Your task to perform on an android device: turn off javascript in the chrome app Image 0: 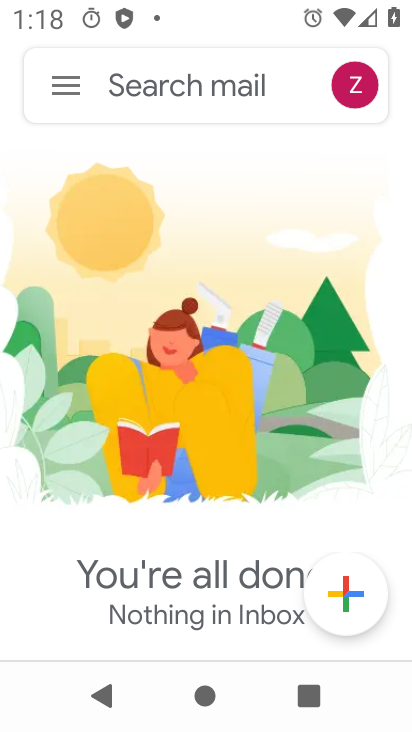
Step 0: press home button
Your task to perform on an android device: turn off javascript in the chrome app Image 1: 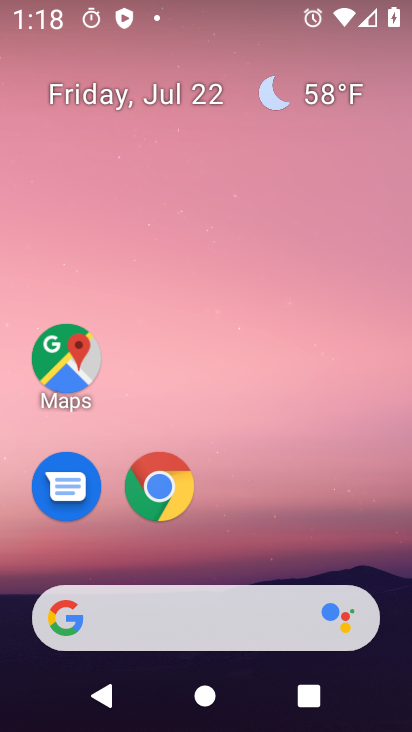
Step 1: drag from (345, 527) to (367, 75)
Your task to perform on an android device: turn off javascript in the chrome app Image 2: 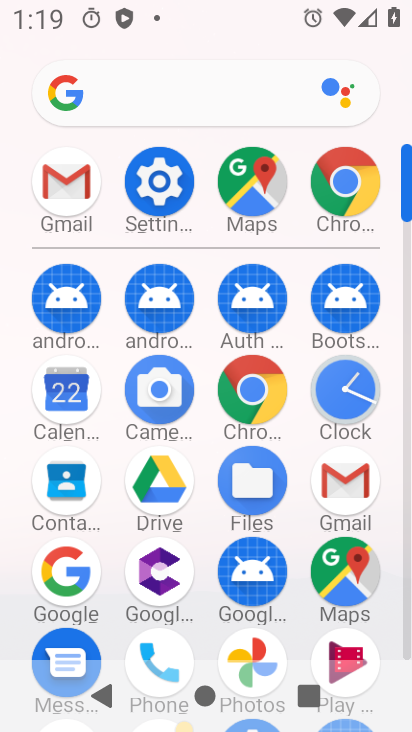
Step 2: click (270, 395)
Your task to perform on an android device: turn off javascript in the chrome app Image 3: 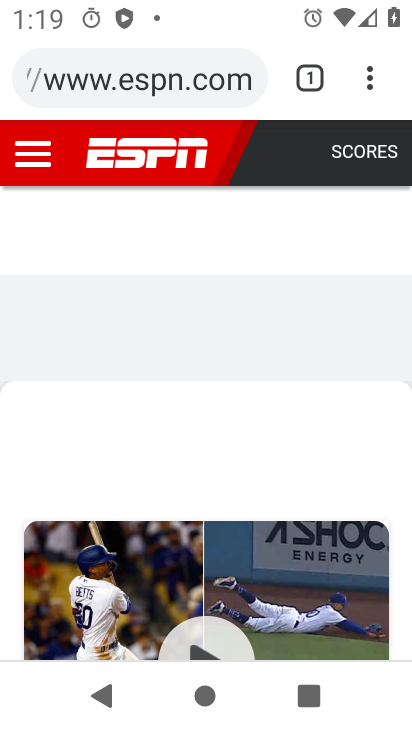
Step 3: click (371, 90)
Your task to perform on an android device: turn off javascript in the chrome app Image 4: 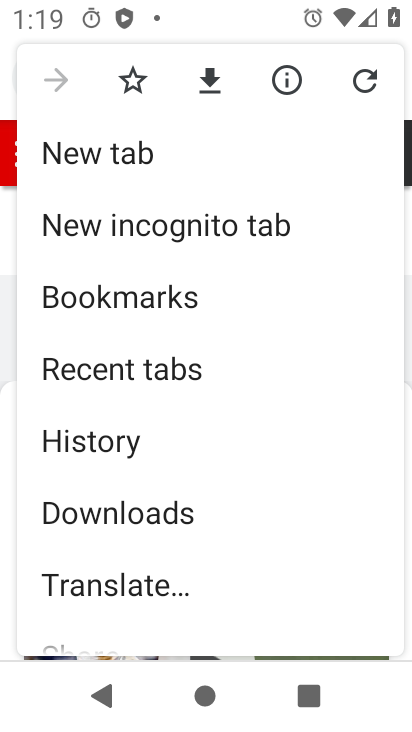
Step 4: drag from (273, 423) to (274, 367)
Your task to perform on an android device: turn off javascript in the chrome app Image 5: 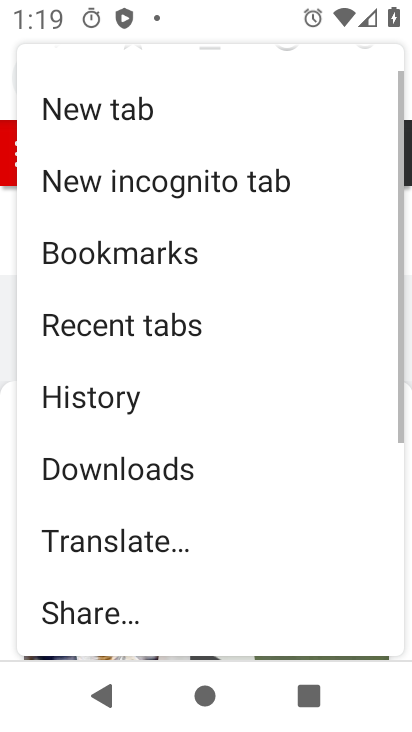
Step 5: drag from (277, 429) to (279, 371)
Your task to perform on an android device: turn off javascript in the chrome app Image 6: 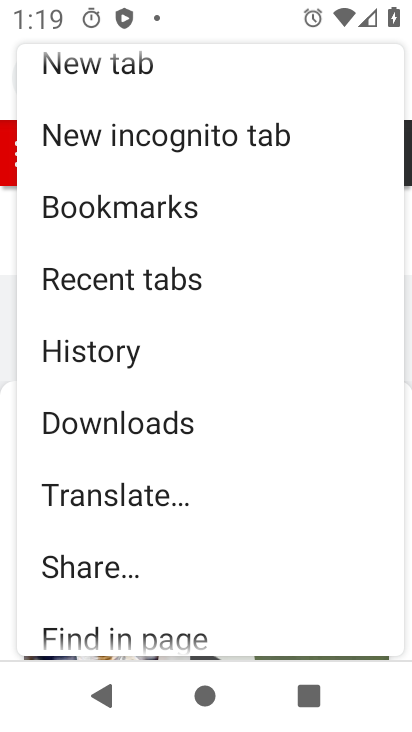
Step 6: drag from (269, 438) to (271, 378)
Your task to perform on an android device: turn off javascript in the chrome app Image 7: 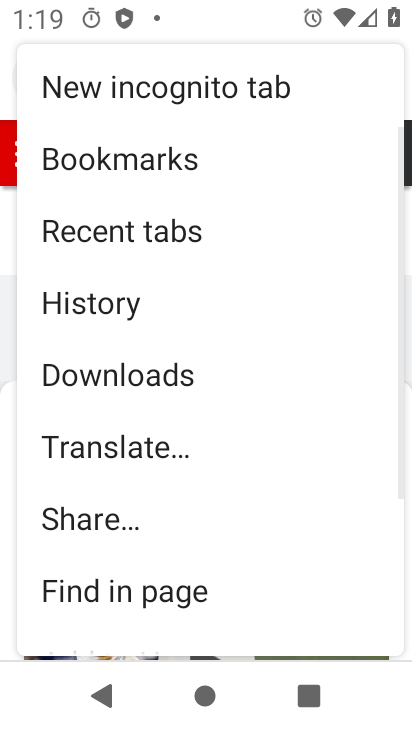
Step 7: drag from (271, 466) to (284, 382)
Your task to perform on an android device: turn off javascript in the chrome app Image 8: 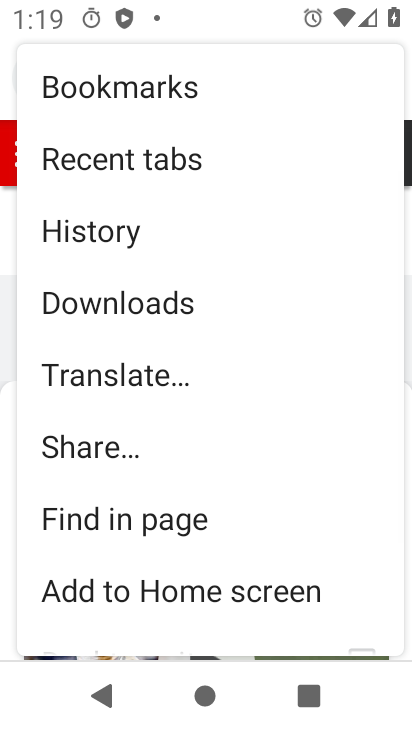
Step 8: drag from (289, 461) to (299, 359)
Your task to perform on an android device: turn off javascript in the chrome app Image 9: 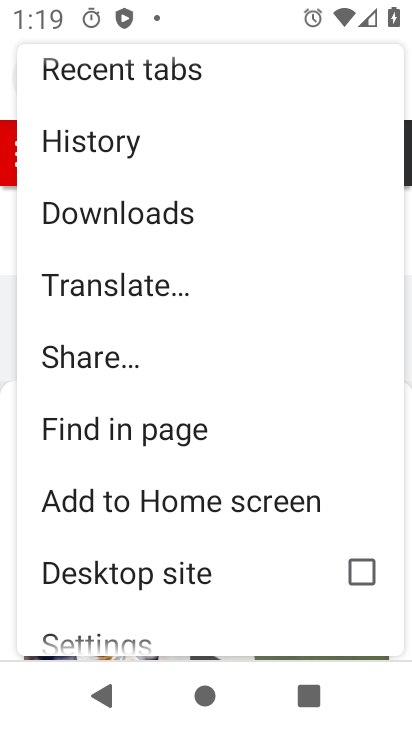
Step 9: drag from (300, 452) to (315, 358)
Your task to perform on an android device: turn off javascript in the chrome app Image 10: 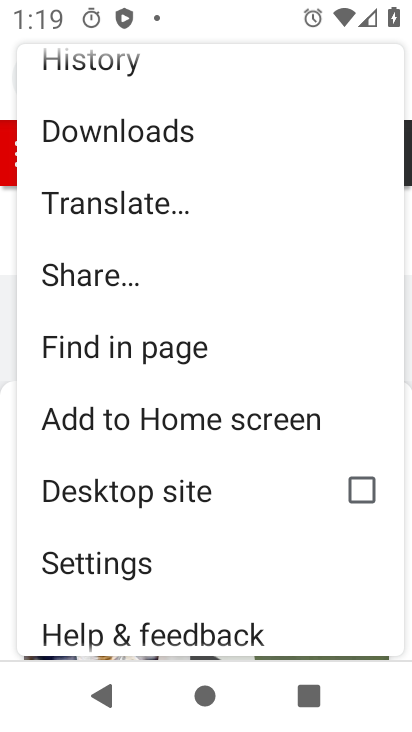
Step 10: drag from (294, 513) to (296, 385)
Your task to perform on an android device: turn off javascript in the chrome app Image 11: 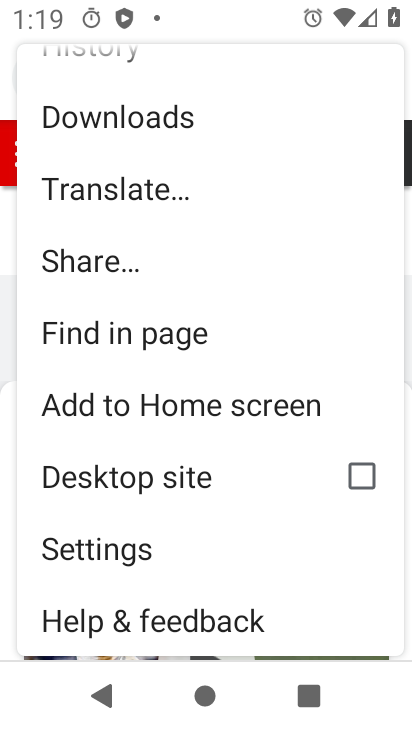
Step 11: click (273, 544)
Your task to perform on an android device: turn off javascript in the chrome app Image 12: 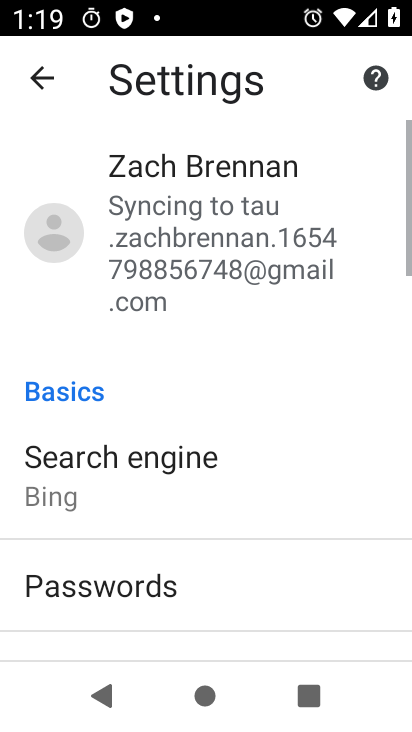
Step 12: drag from (273, 542) to (286, 451)
Your task to perform on an android device: turn off javascript in the chrome app Image 13: 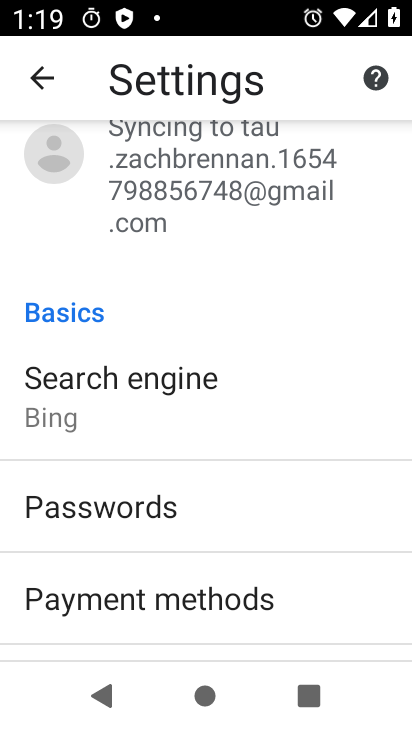
Step 13: drag from (309, 562) to (320, 452)
Your task to perform on an android device: turn off javascript in the chrome app Image 14: 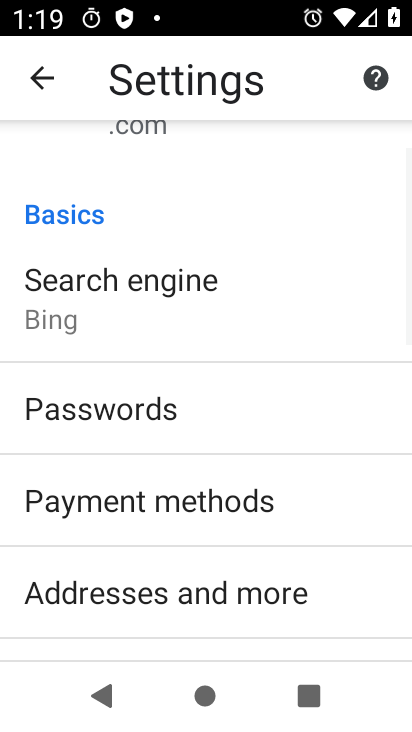
Step 14: drag from (330, 572) to (330, 470)
Your task to perform on an android device: turn off javascript in the chrome app Image 15: 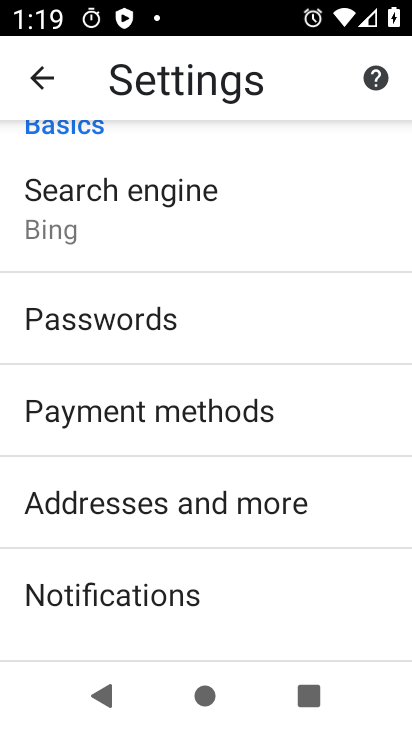
Step 15: drag from (334, 587) to (340, 478)
Your task to perform on an android device: turn off javascript in the chrome app Image 16: 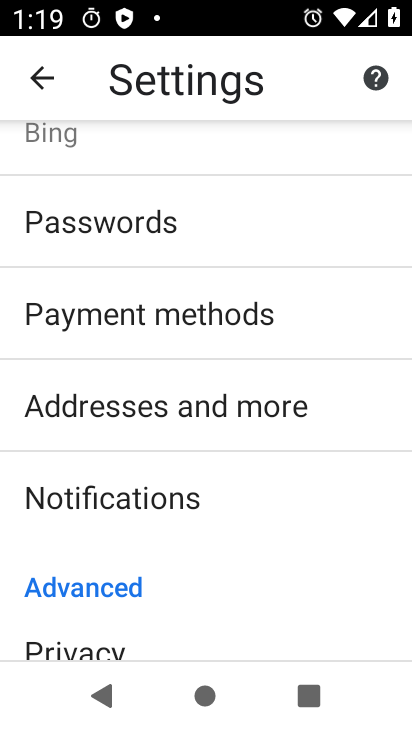
Step 16: drag from (340, 571) to (339, 471)
Your task to perform on an android device: turn off javascript in the chrome app Image 17: 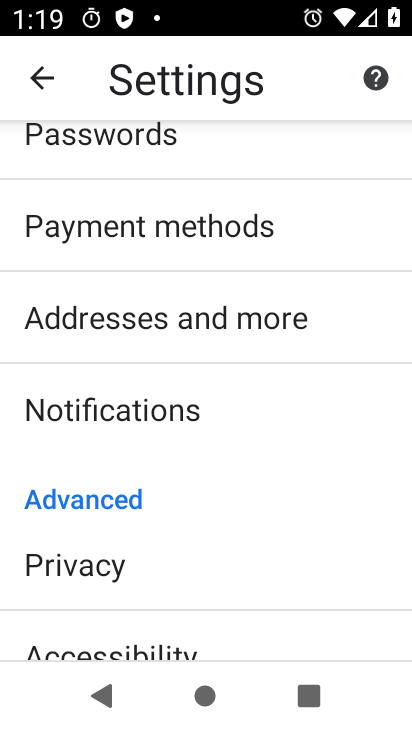
Step 17: drag from (329, 564) to (324, 447)
Your task to perform on an android device: turn off javascript in the chrome app Image 18: 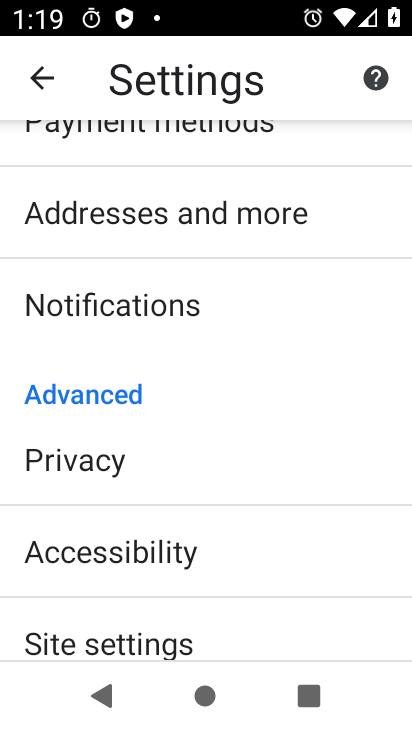
Step 18: drag from (323, 572) to (323, 400)
Your task to perform on an android device: turn off javascript in the chrome app Image 19: 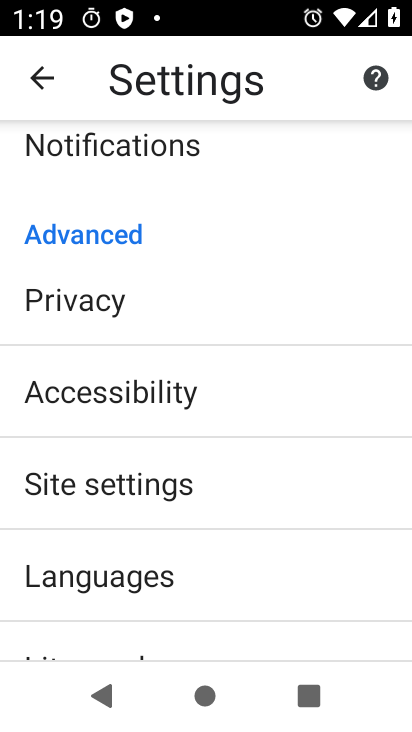
Step 19: click (323, 455)
Your task to perform on an android device: turn off javascript in the chrome app Image 20: 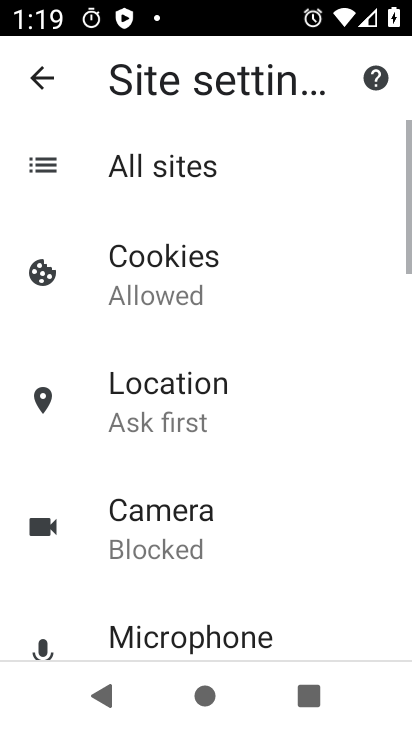
Step 20: drag from (316, 523) to (323, 349)
Your task to perform on an android device: turn off javascript in the chrome app Image 21: 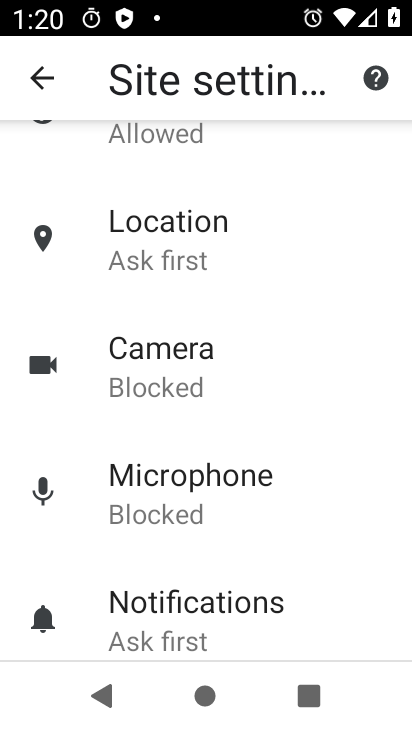
Step 21: drag from (324, 529) to (345, 363)
Your task to perform on an android device: turn off javascript in the chrome app Image 22: 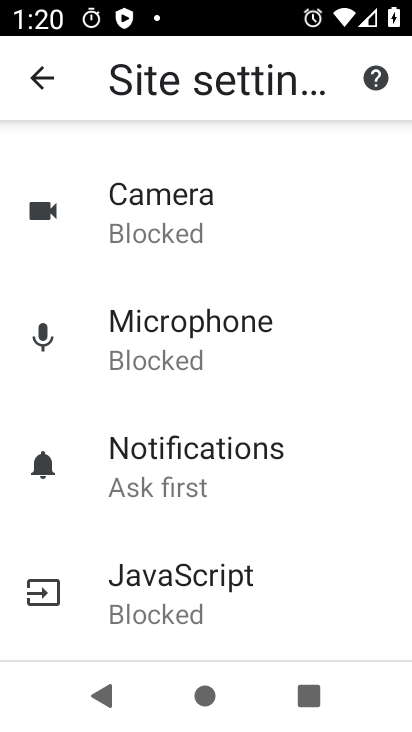
Step 22: drag from (345, 554) to (344, 436)
Your task to perform on an android device: turn off javascript in the chrome app Image 23: 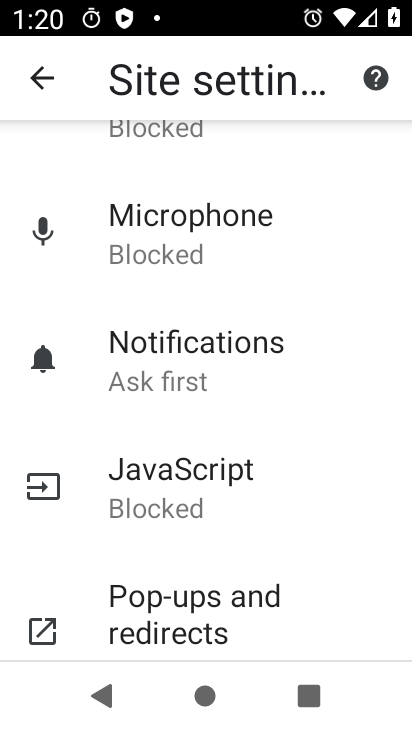
Step 23: click (335, 491)
Your task to perform on an android device: turn off javascript in the chrome app Image 24: 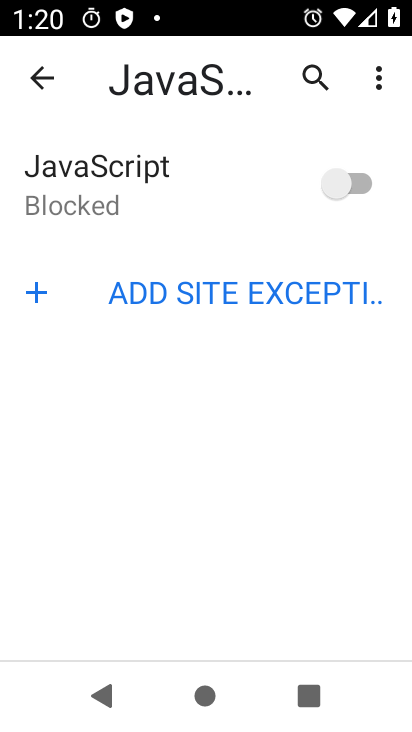
Step 24: task complete